Your task to perform on an android device: turn off location Image 0: 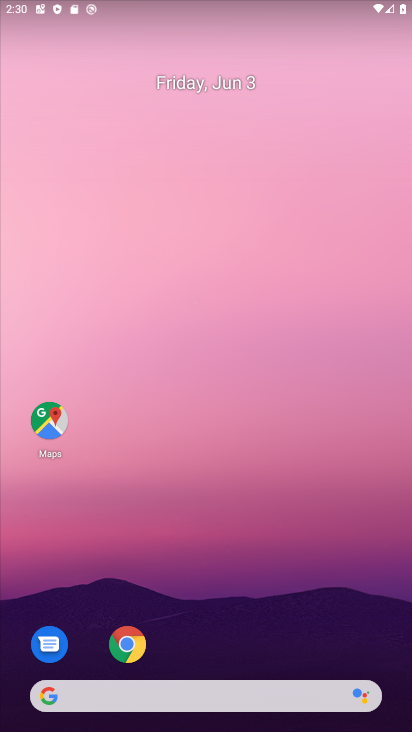
Step 0: drag from (219, 650) to (226, 306)
Your task to perform on an android device: turn off location Image 1: 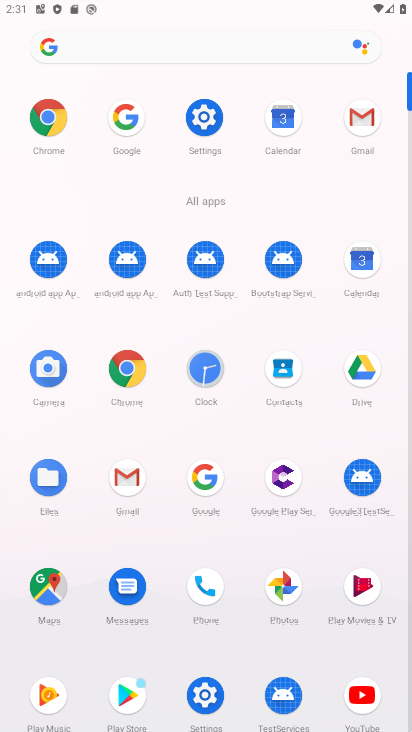
Step 1: click (199, 117)
Your task to perform on an android device: turn off location Image 2: 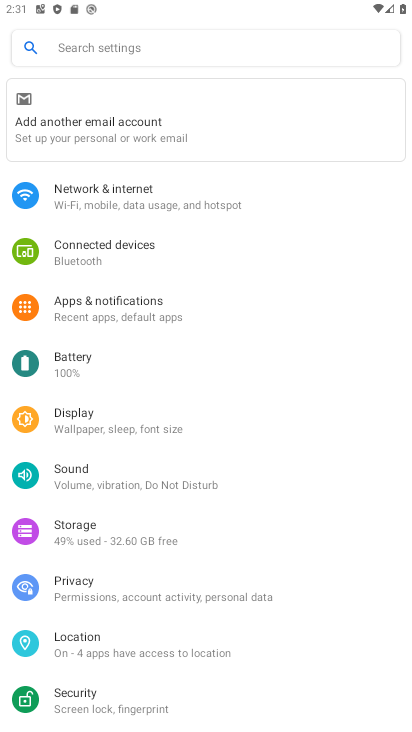
Step 2: click (132, 653)
Your task to perform on an android device: turn off location Image 3: 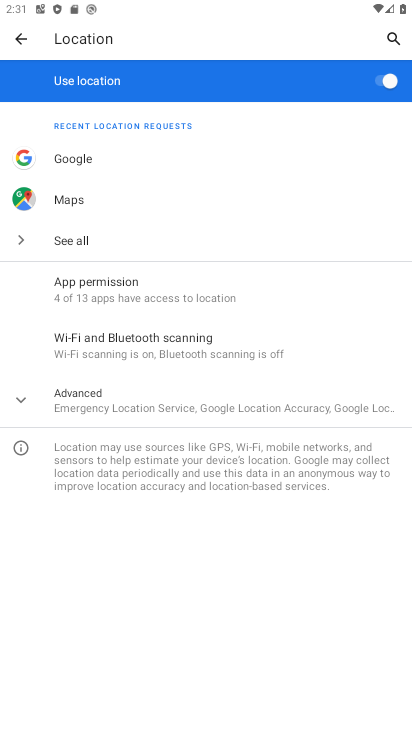
Step 3: click (384, 75)
Your task to perform on an android device: turn off location Image 4: 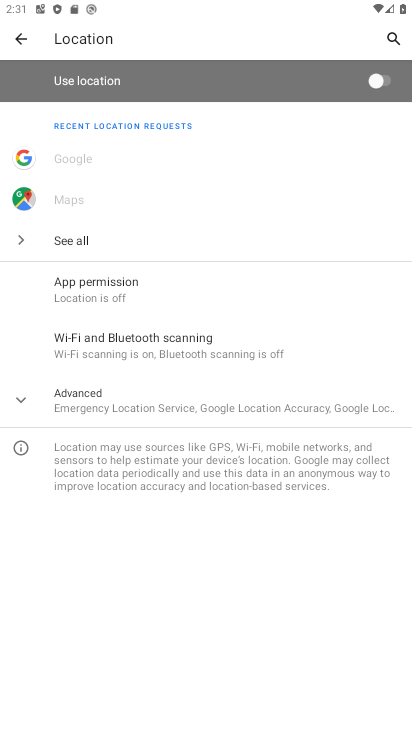
Step 4: task complete